Your task to perform on an android device: turn on translation in the chrome app Image 0: 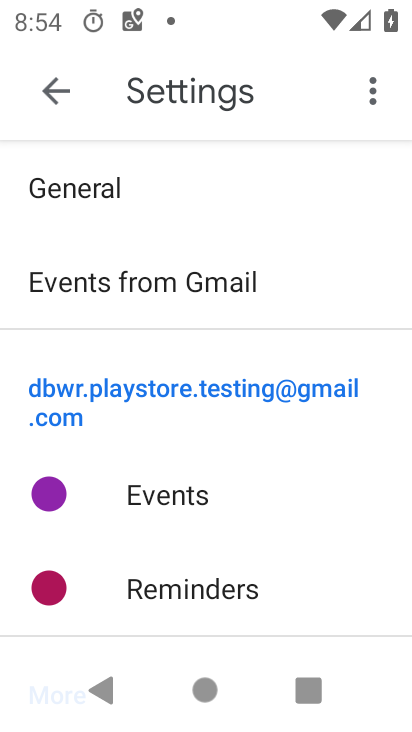
Step 0: press home button
Your task to perform on an android device: turn on translation in the chrome app Image 1: 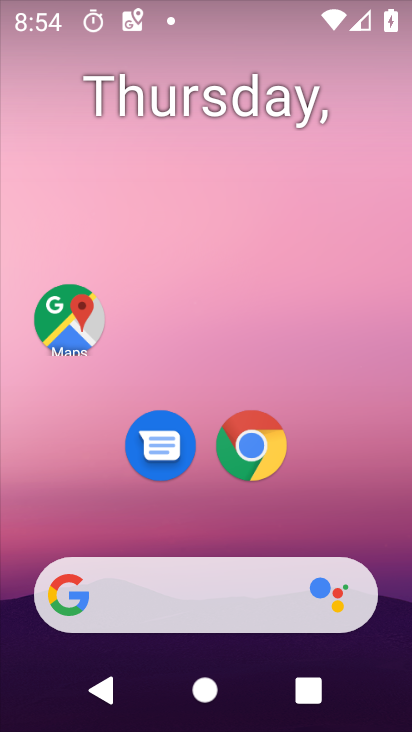
Step 1: click (241, 436)
Your task to perform on an android device: turn on translation in the chrome app Image 2: 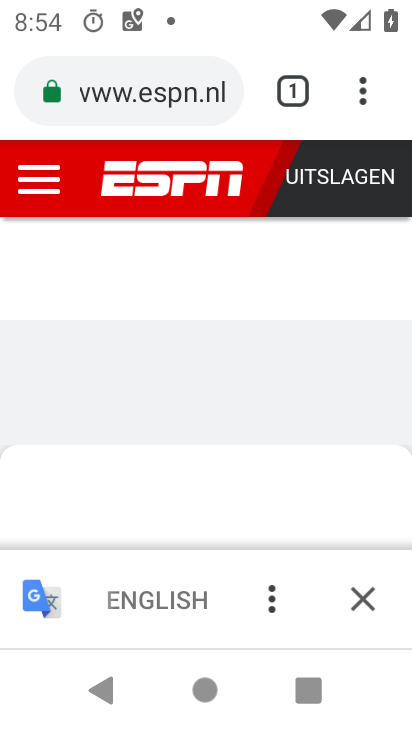
Step 2: click (365, 88)
Your task to perform on an android device: turn on translation in the chrome app Image 3: 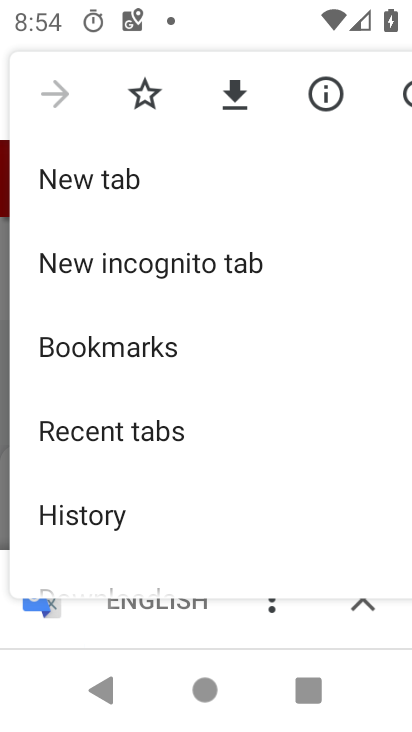
Step 3: drag from (69, 527) to (237, 103)
Your task to perform on an android device: turn on translation in the chrome app Image 4: 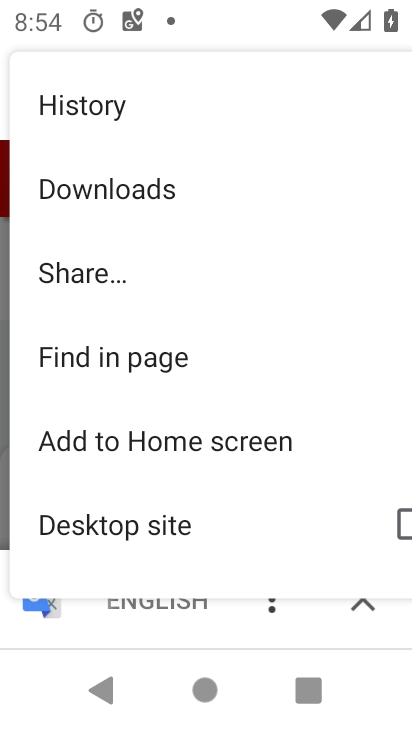
Step 4: drag from (53, 543) to (224, 173)
Your task to perform on an android device: turn on translation in the chrome app Image 5: 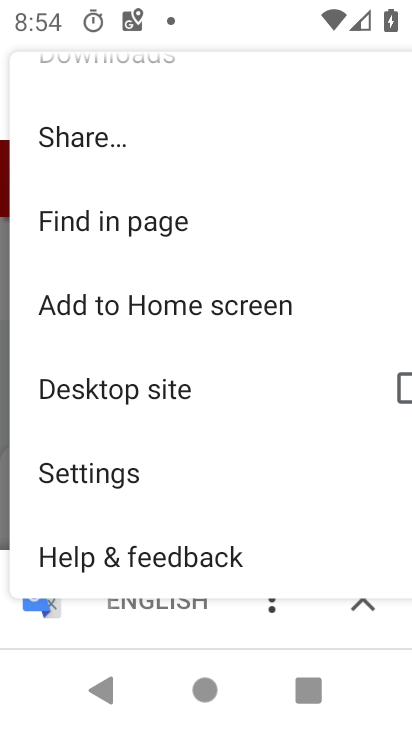
Step 5: click (80, 459)
Your task to perform on an android device: turn on translation in the chrome app Image 6: 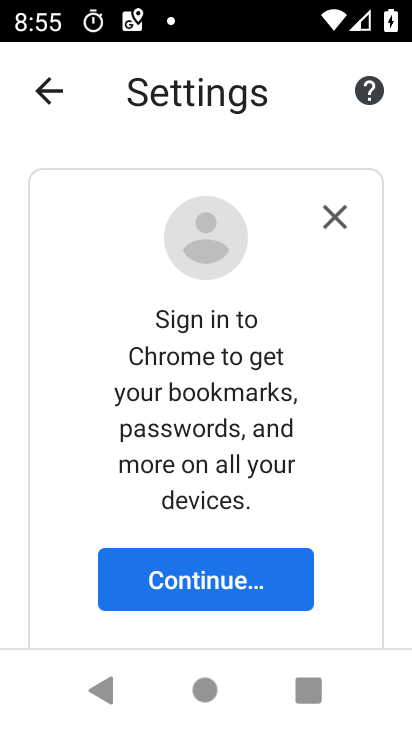
Step 6: click (342, 224)
Your task to perform on an android device: turn on translation in the chrome app Image 7: 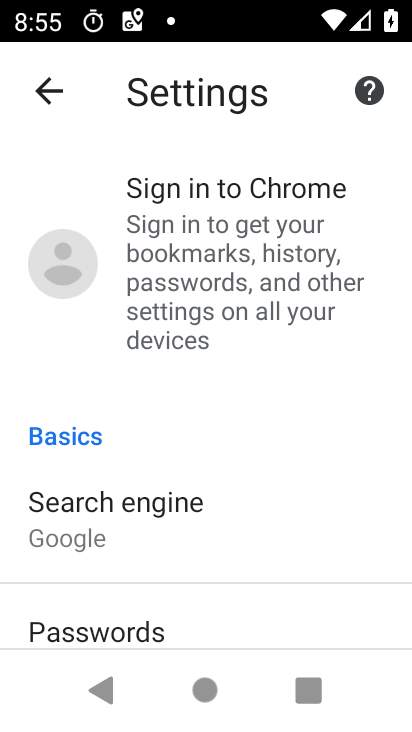
Step 7: drag from (123, 646) to (350, 283)
Your task to perform on an android device: turn on translation in the chrome app Image 8: 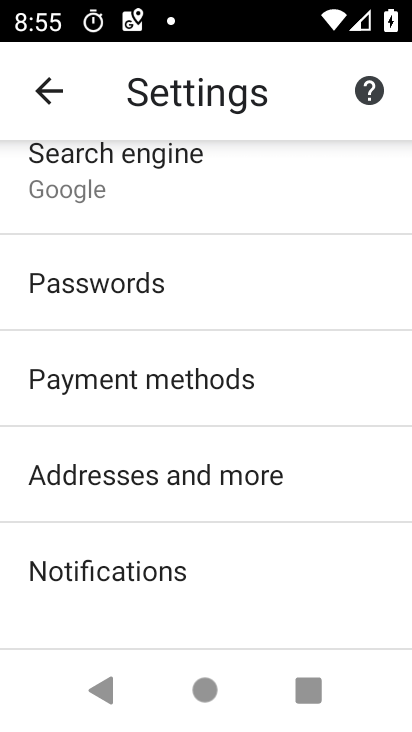
Step 8: drag from (170, 586) to (321, 298)
Your task to perform on an android device: turn on translation in the chrome app Image 9: 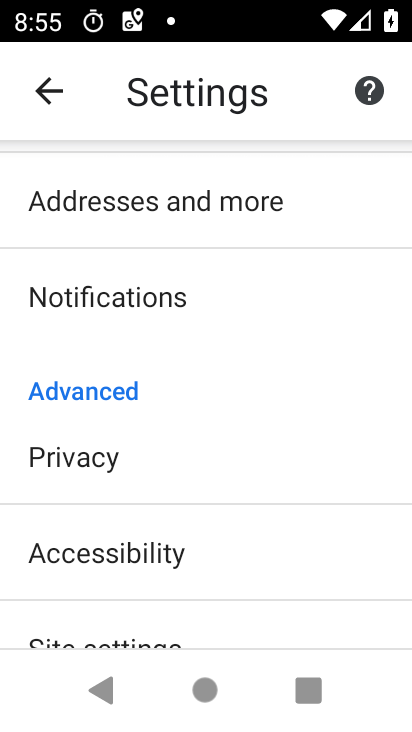
Step 9: drag from (192, 563) to (316, 296)
Your task to perform on an android device: turn on translation in the chrome app Image 10: 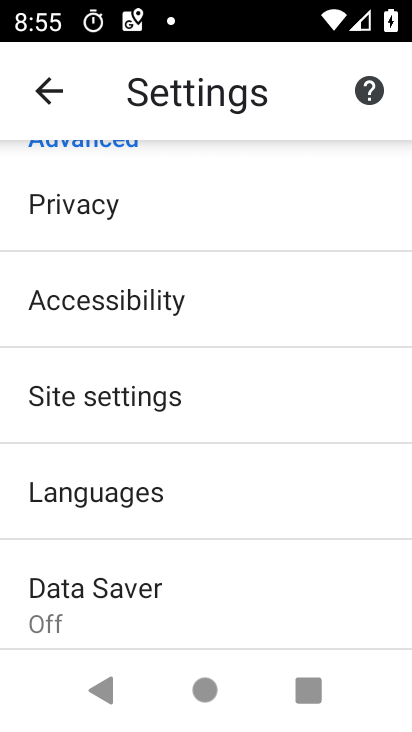
Step 10: click (270, 495)
Your task to perform on an android device: turn on translation in the chrome app Image 11: 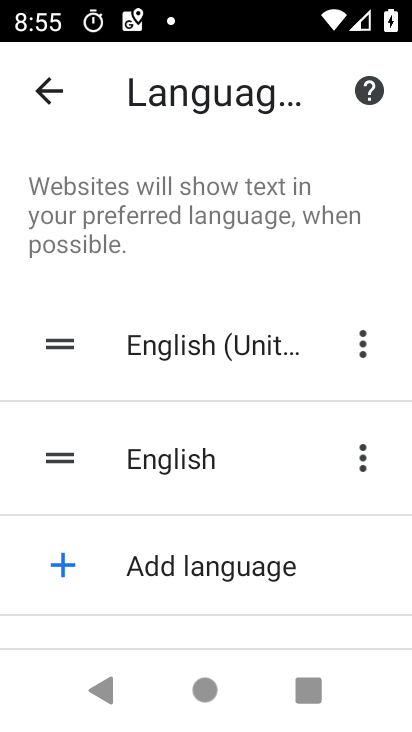
Step 11: task complete